Your task to perform on an android device: Open calendar and show me the second week of next month Image 0: 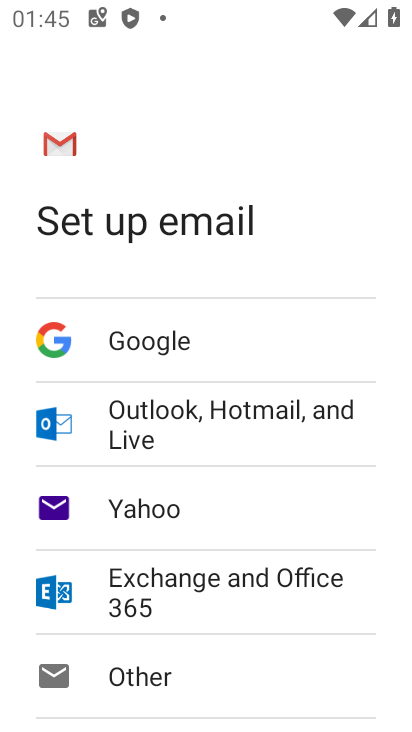
Step 0: press home button
Your task to perform on an android device: Open calendar and show me the second week of next month Image 1: 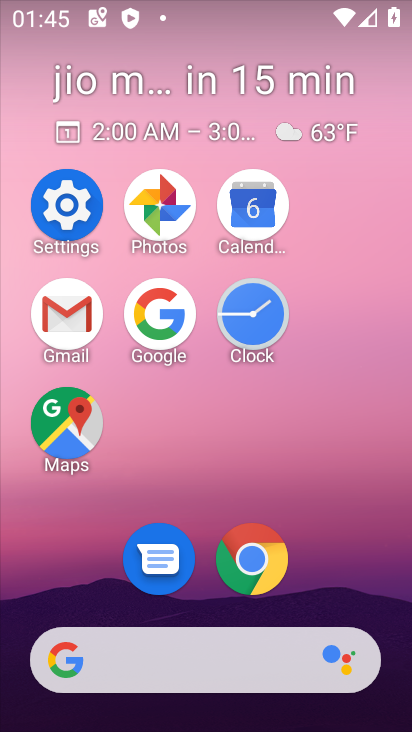
Step 1: click (241, 207)
Your task to perform on an android device: Open calendar and show me the second week of next month Image 2: 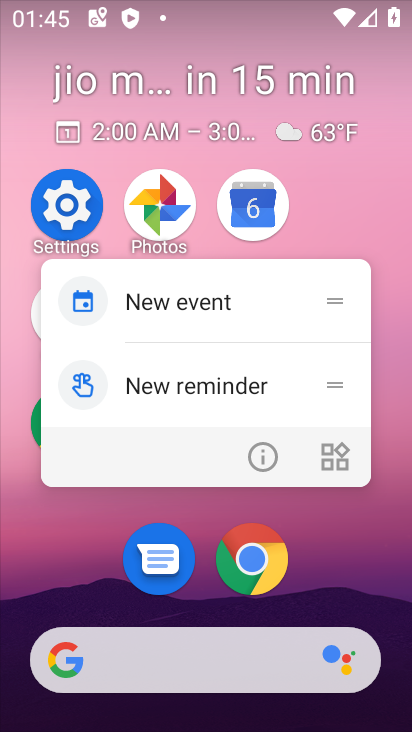
Step 2: click (250, 220)
Your task to perform on an android device: Open calendar and show me the second week of next month Image 3: 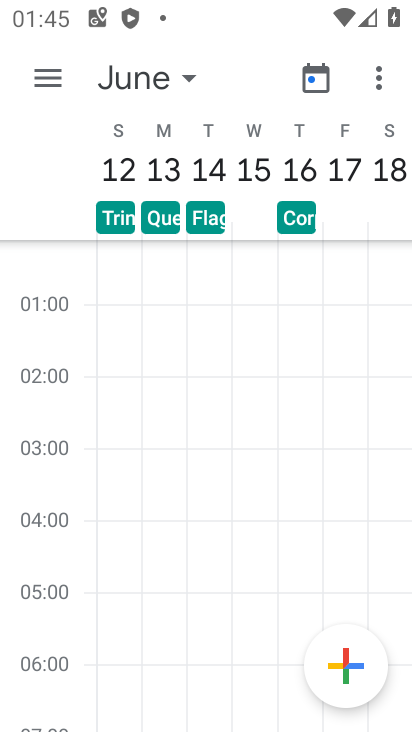
Step 3: click (150, 93)
Your task to perform on an android device: Open calendar and show me the second week of next month Image 4: 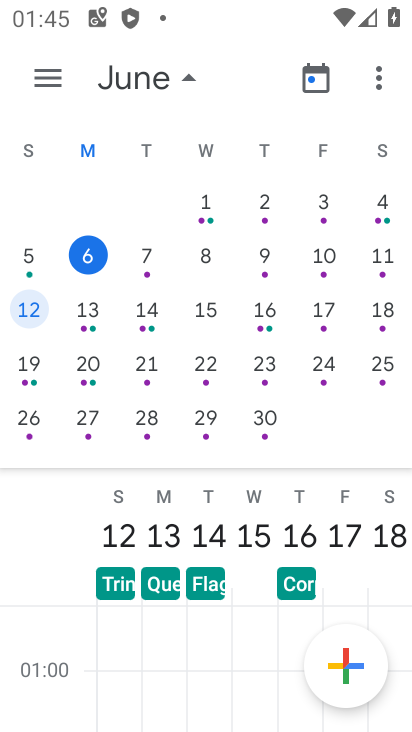
Step 4: drag from (382, 293) to (36, 293)
Your task to perform on an android device: Open calendar and show me the second week of next month Image 5: 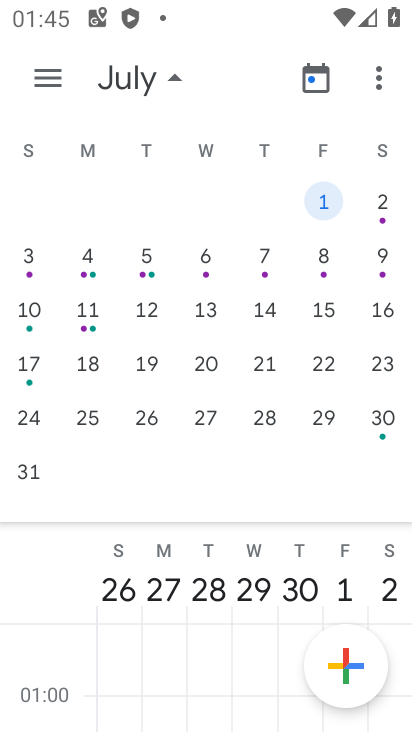
Step 5: click (45, 70)
Your task to perform on an android device: Open calendar and show me the second week of next month Image 6: 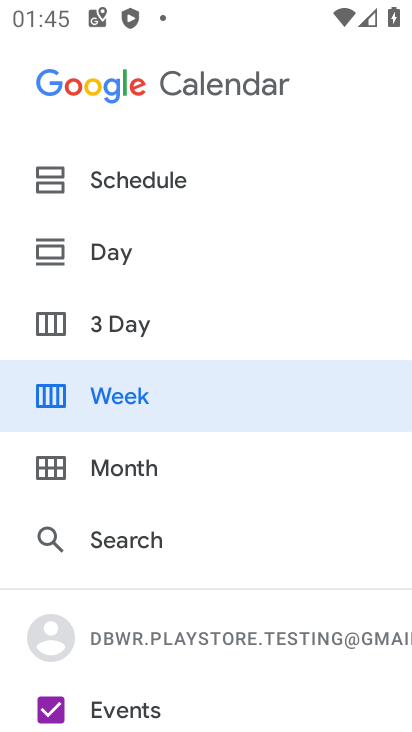
Step 6: click (105, 392)
Your task to perform on an android device: Open calendar and show me the second week of next month Image 7: 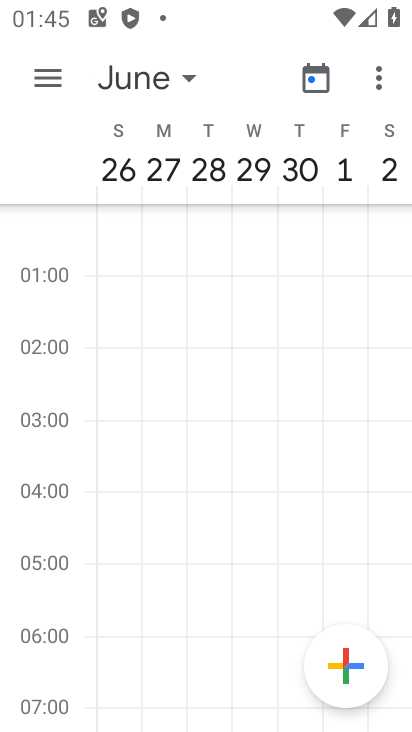
Step 7: task complete